Your task to perform on an android device: turn pop-ups on in chrome Image 0: 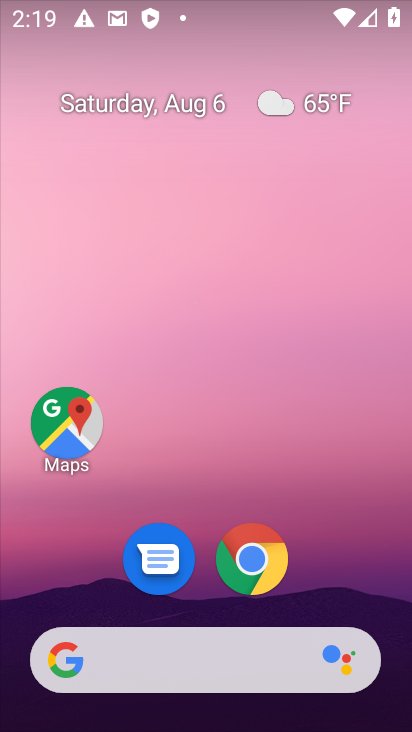
Step 0: click (266, 561)
Your task to perform on an android device: turn pop-ups on in chrome Image 1: 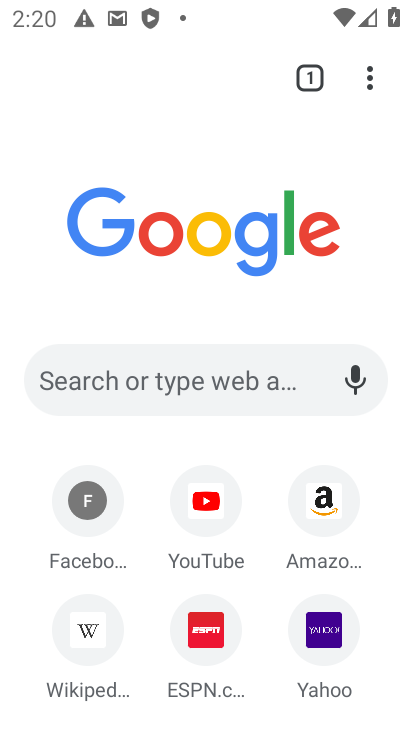
Step 1: click (365, 81)
Your task to perform on an android device: turn pop-ups on in chrome Image 2: 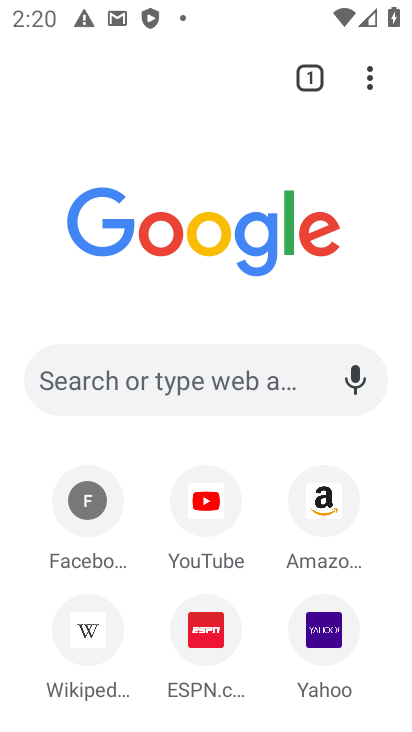
Step 2: drag from (374, 80) to (146, 630)
Your task to perform on an android device: turn pop-ups on in chrome Image 3: 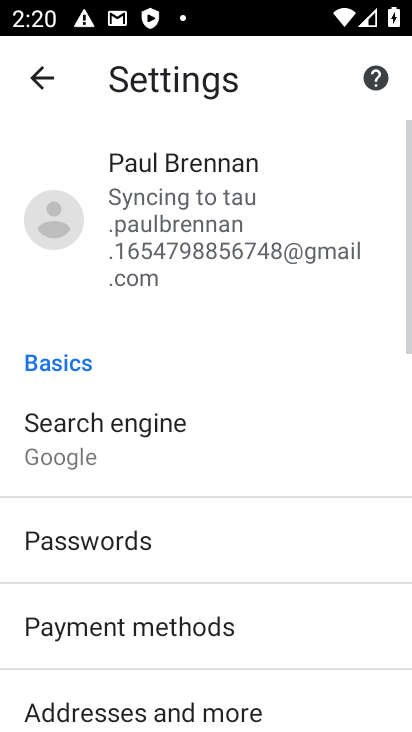
Step 3: drag from (227, 622) to (223, 261)
Your task to perform on an android device: turn pop-ups on in chrome Image 4: 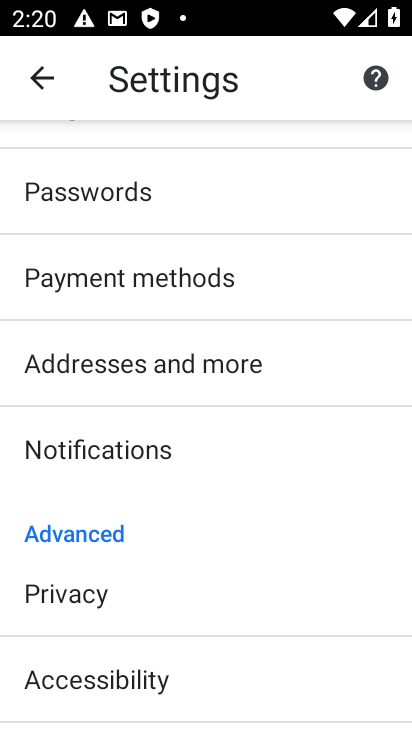
Step 4: drag from (226, 610) to (240, 281)
Your task to perform on an android device: turn pop-ups on in chrome Image 5: 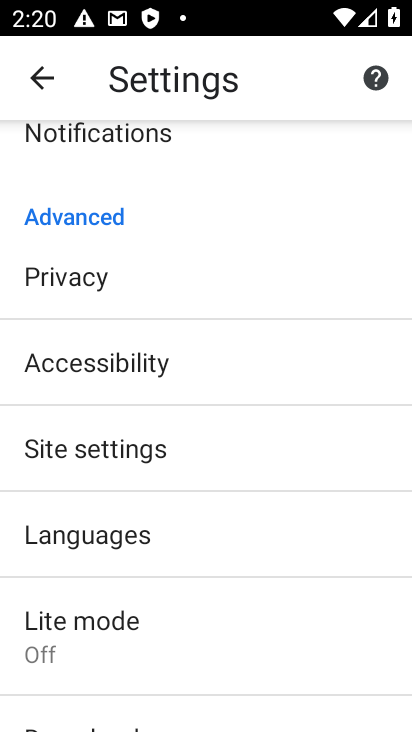
Step 5: click (172, 455)
Your task to perform on an android device: turn pop-ups on in chrome Image 6: 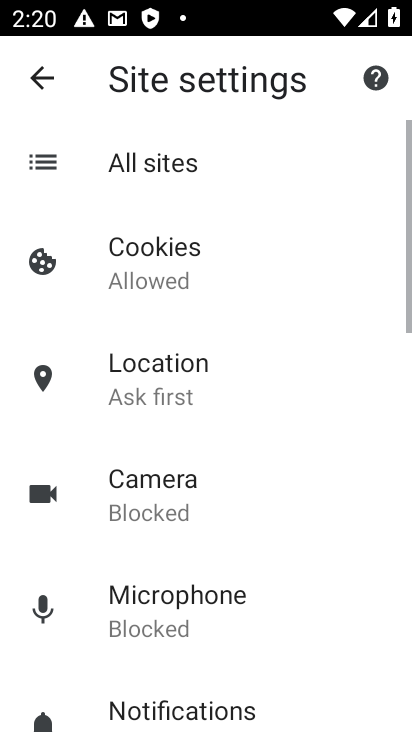
Step 6: drag from (242, 622) to (236, 249)
Your task to perform on an android device: turn pop-ups on in chrome Image 7: 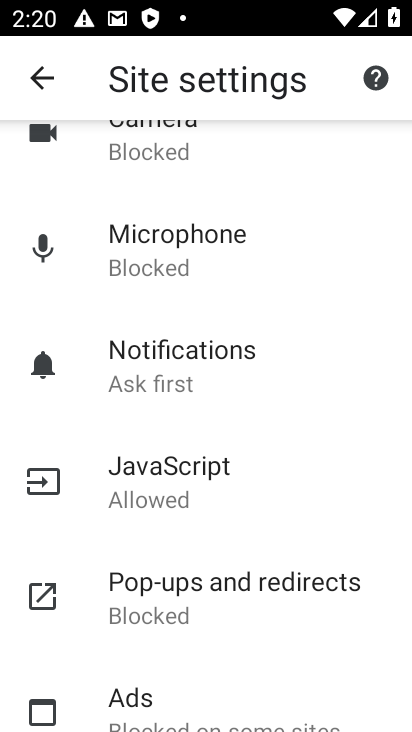
Step 7: click (231, 587)
Your task to perform on an android device: turn pop-ups on in chrome Image 8: 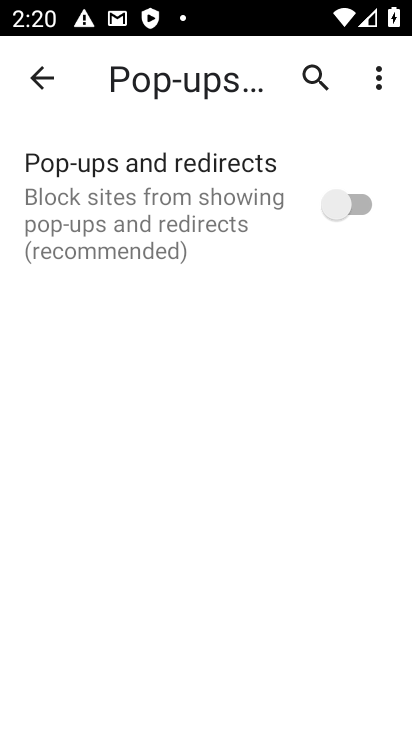
Step 8: click (366, 219)
Your task to perform on an android device: turn pop-ups on in chrome Image 9: 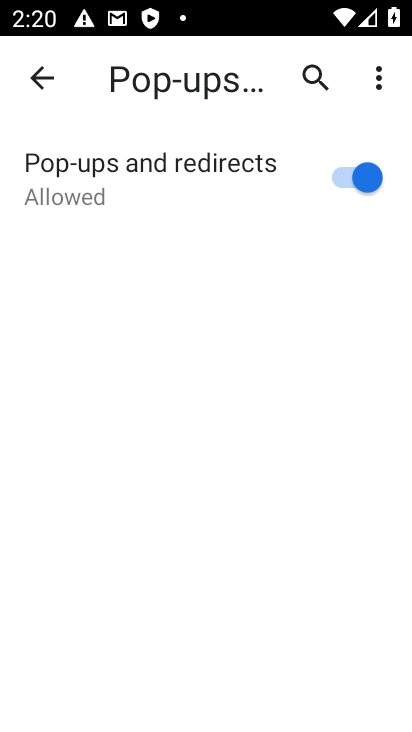
Step 9: task complete